Your task to perform on an android device: Go to Yahoo.com Image 0: 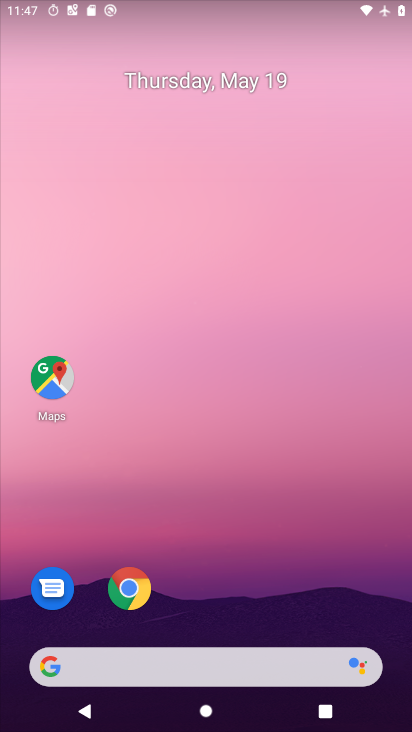
Step 0: press home button
Your task to perform on an android device: Go to Yahoo.com Image 1: 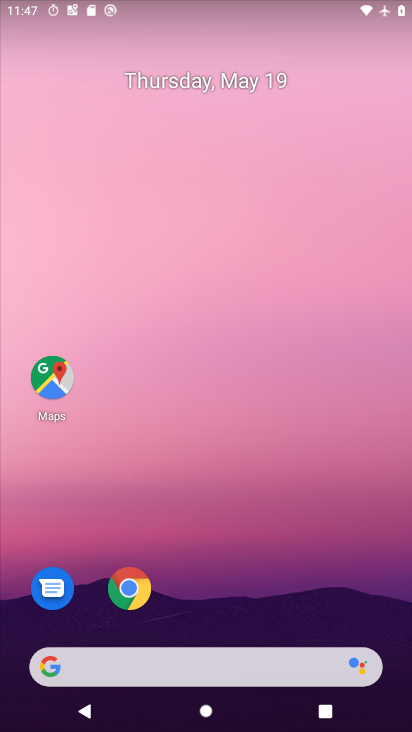
Step 1: click (120, 601)
Your task to perform on an android device: Go to Yahoo.com Image 2: 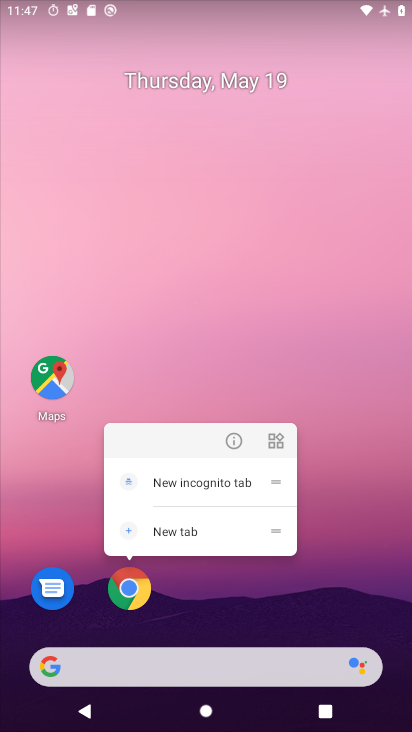
Step 2: click (138, 590)
Your task to perform on an android device: Go to Yahoo.com Image 3: 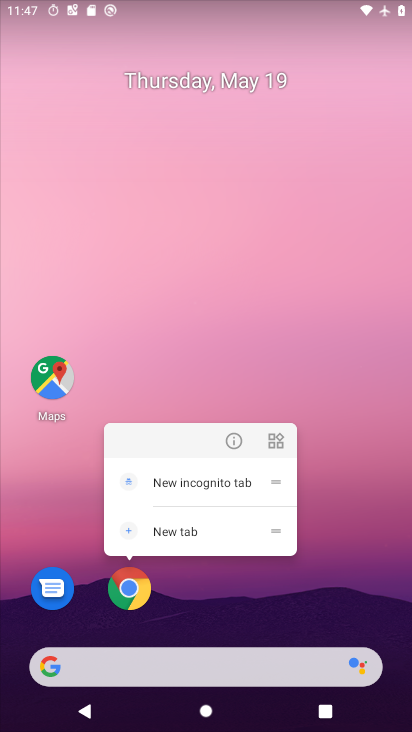
Step 3: click (126, 592)
Your task to perform on an android device: Go to Yahoo.com Image 4: 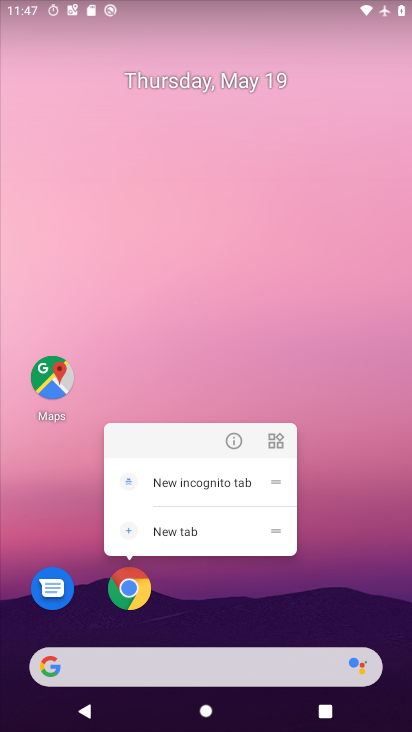
Step 4: click (131, 592)
Your task to perform on an android device: Go to Yahoo.com Image 5: 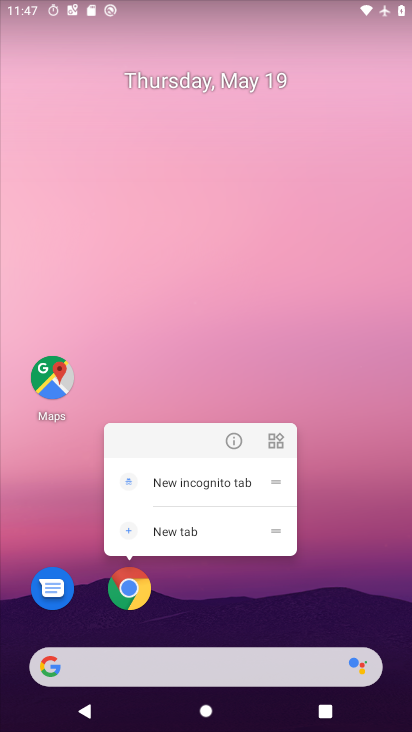
Step 5: click (132, 602)
Your task to perform on an android device: Go to Yahoo.com Image 6: 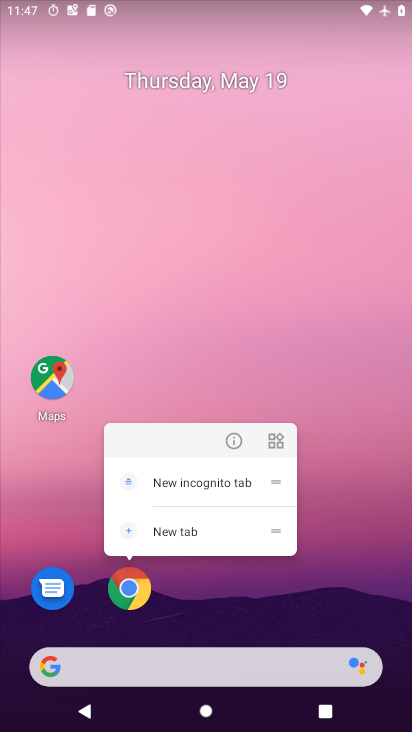
Step 6: click (132, 592)
Your task to perform on an android device: Go to Yahoo.com Image 7: 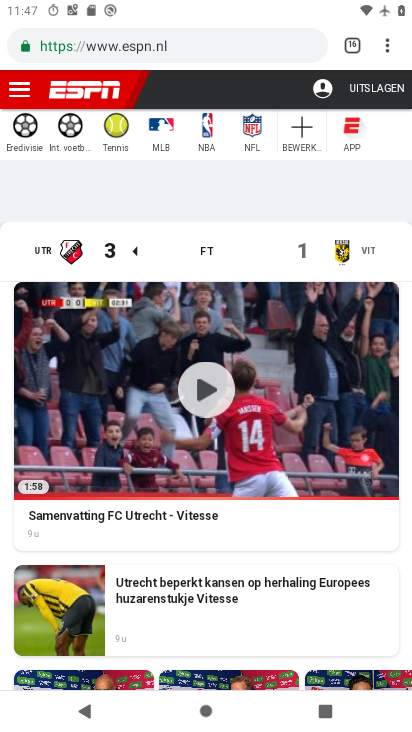
Step 7: drag from (389, 45) to (284, 85)
Your task to perform on an android device: Go to Yahoo.com Image 8: 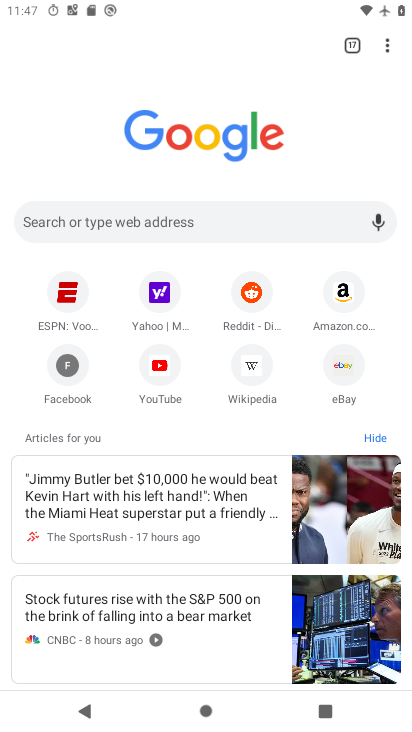
Step 8: click (158, 301)
Your task to perform on an android device: Go to Yahoo.com Image 9: 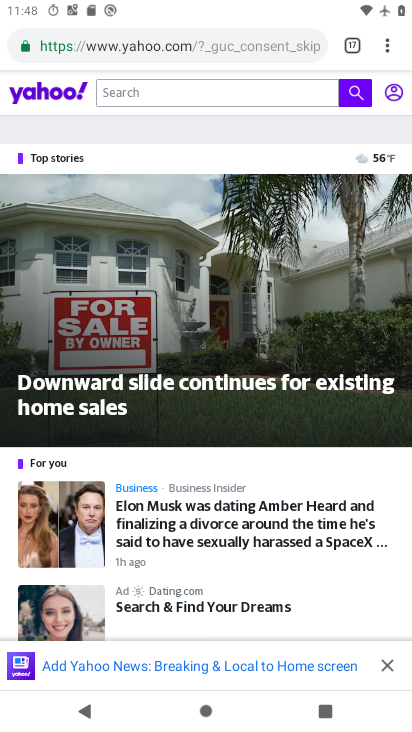
Step 9: task complete